Your task to perform on an android device: find photos in the google photos app Image 0: 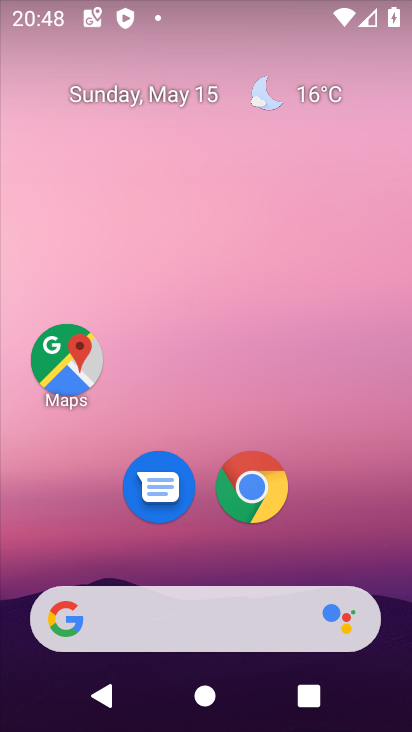
Step 0: drag from (399, 659) to (398, 408)
Your task to perform on an android device: find photos in the google photos app Image 1: 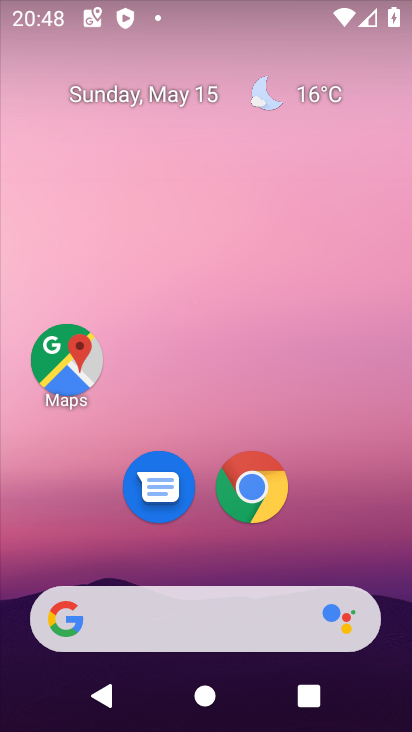
Step 1: drag from (391, 637) to (376, 298)
Your task to perform on an android device: find photos in the google photos app Image 2: 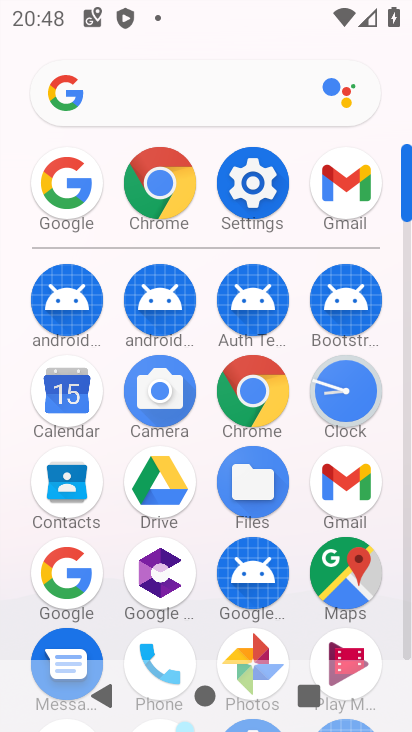
Step 2: click (263, 635)
Your task to perform on an android device: find photos in the google photos app Image 3: 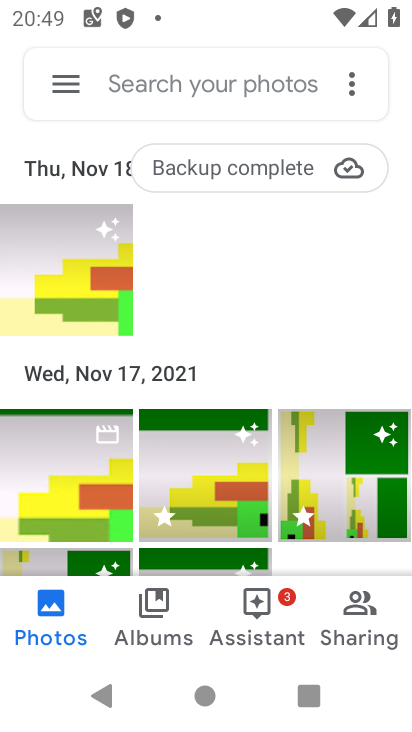
Step 3: click (52, 272)
Your task to perform on an android device: find photos in the google photos app Image 4: 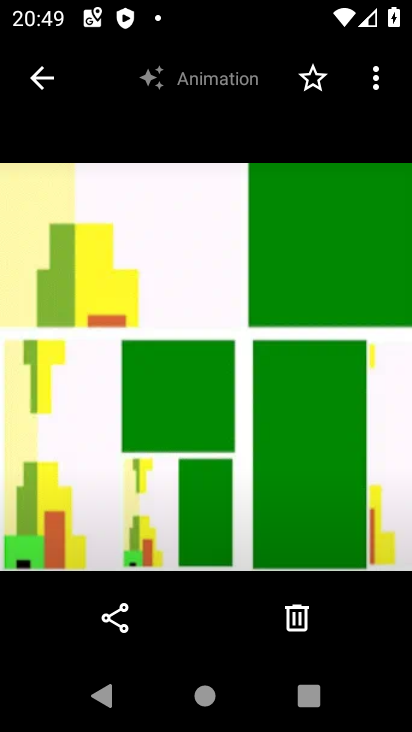
Step 4: click (41, 87)
Your task to perform on an android device: find photos in the google photos app Image 5: 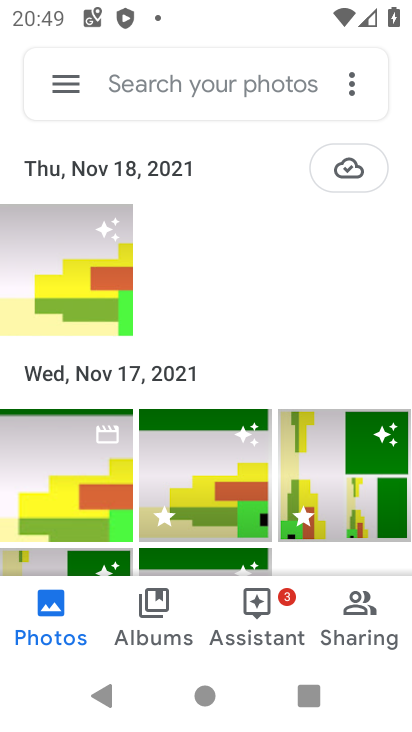
Step 5: task complete